Your task to perform on an android device: Search for flights from Barcelona to Boston Image 0: 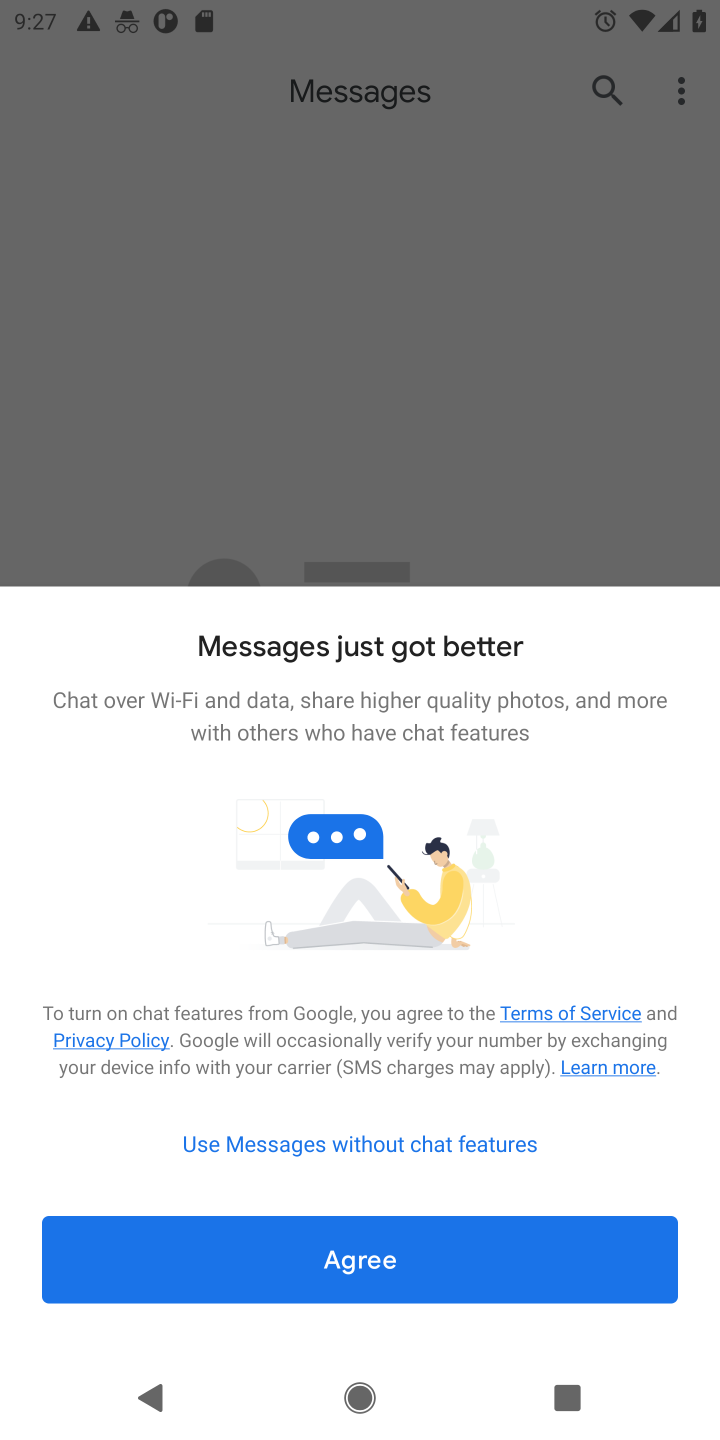
Step 0: press home button
Your task to perform on an android device: Search for flights from Barcelona to Boston Image 1: 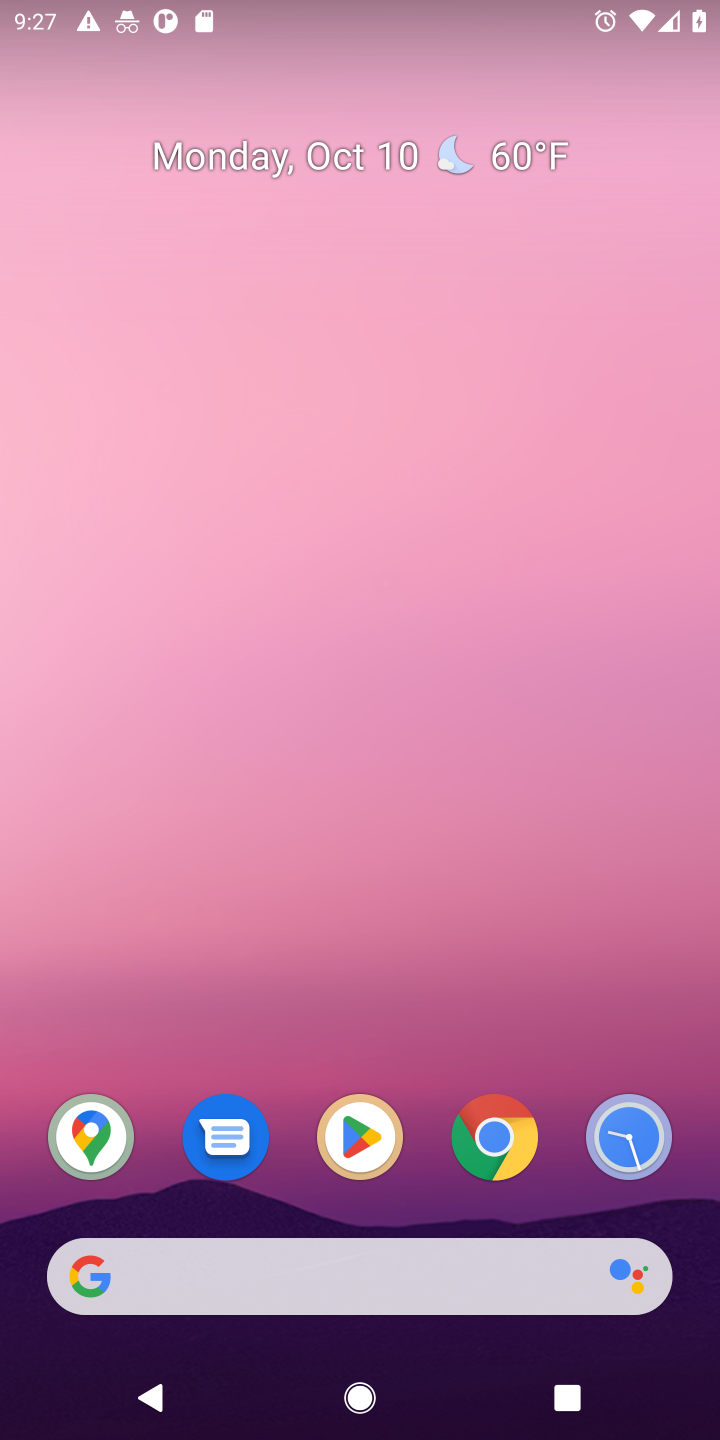
Step 1: click (492, 1133)
Your task to perform on an android device: Search for flights from Barcelona to Boston Image 2: 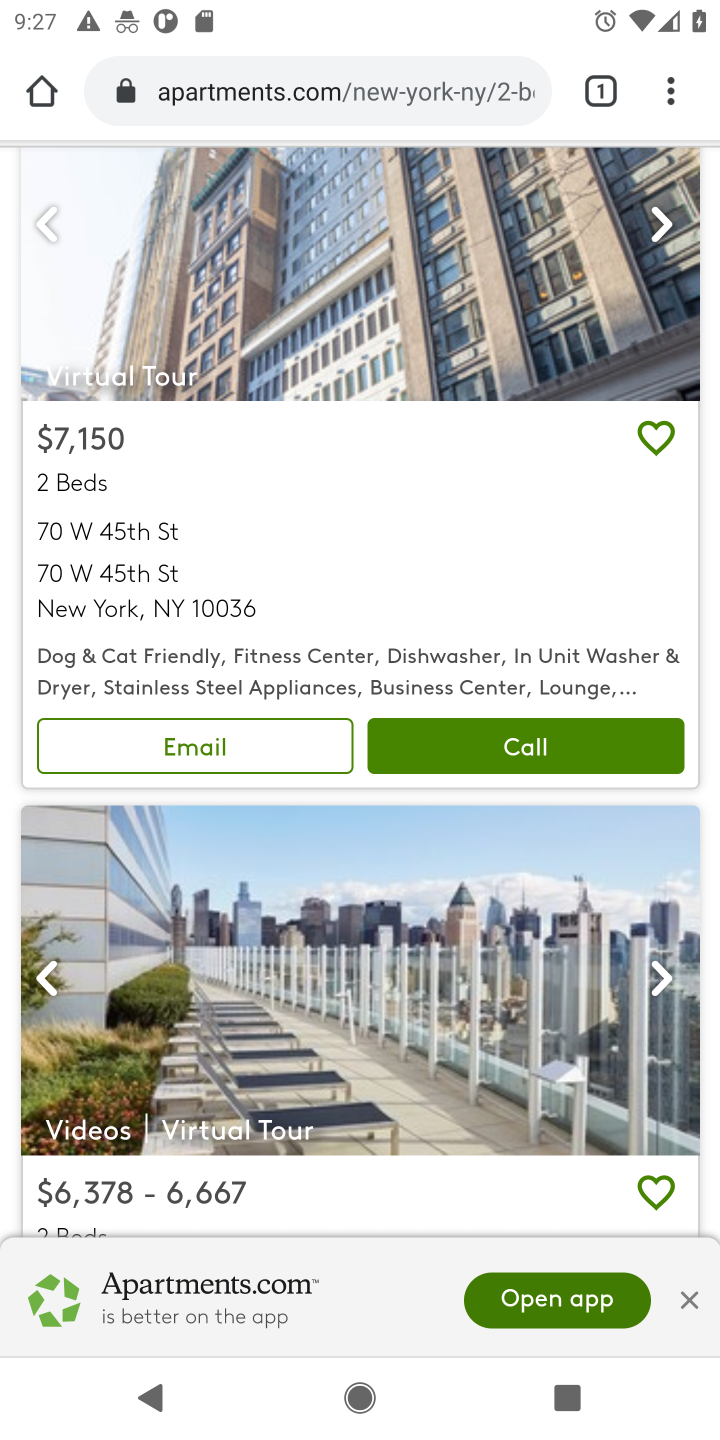
Step 2: click (349, 62)
Your task to perform on an android device: Search for flights from Barcelona to Boston Image 3: 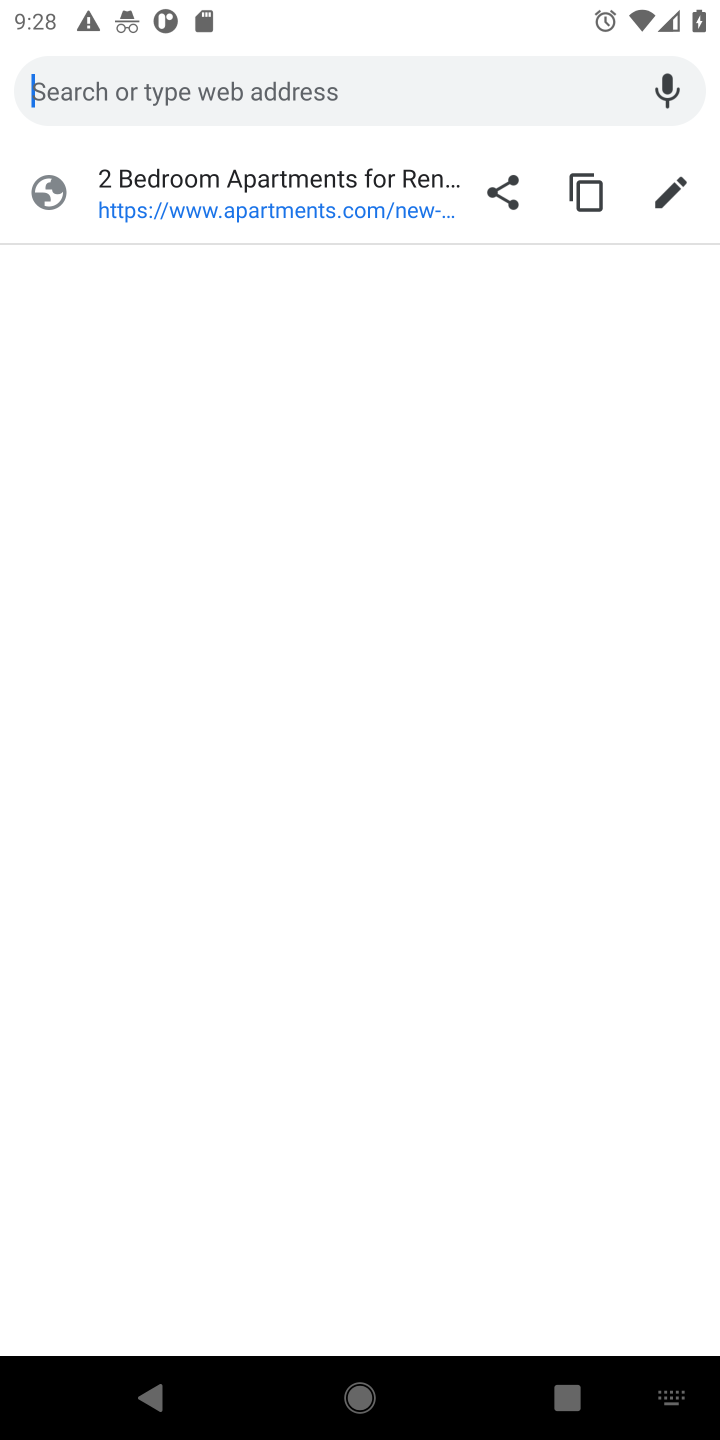
Step 3: type "flights from Barcelona to Boston"
Your task to perform on an android device: Search for flights from Barcelona to Boston Image 4: 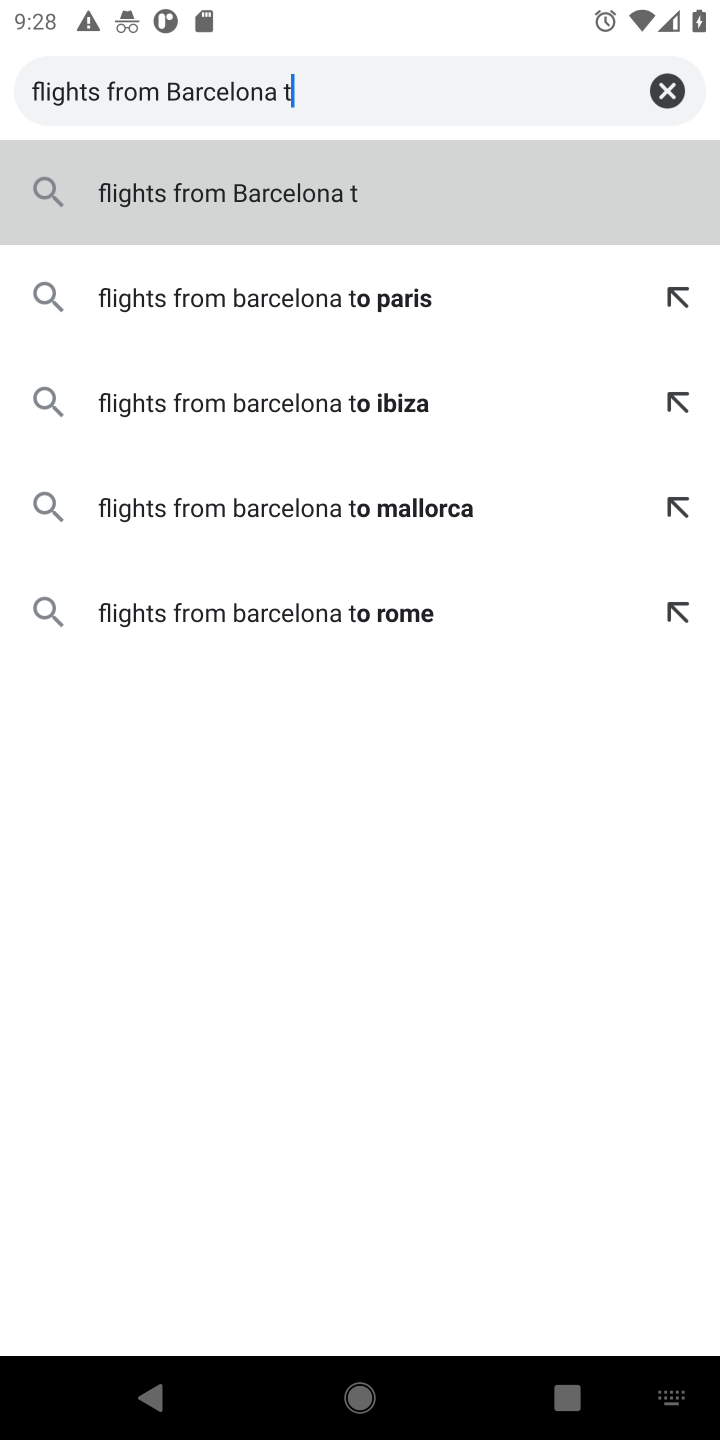
Step 4: type "o boston"
Your task to perform on an android device: Search for flights from Barcelona to Boston Image 5: 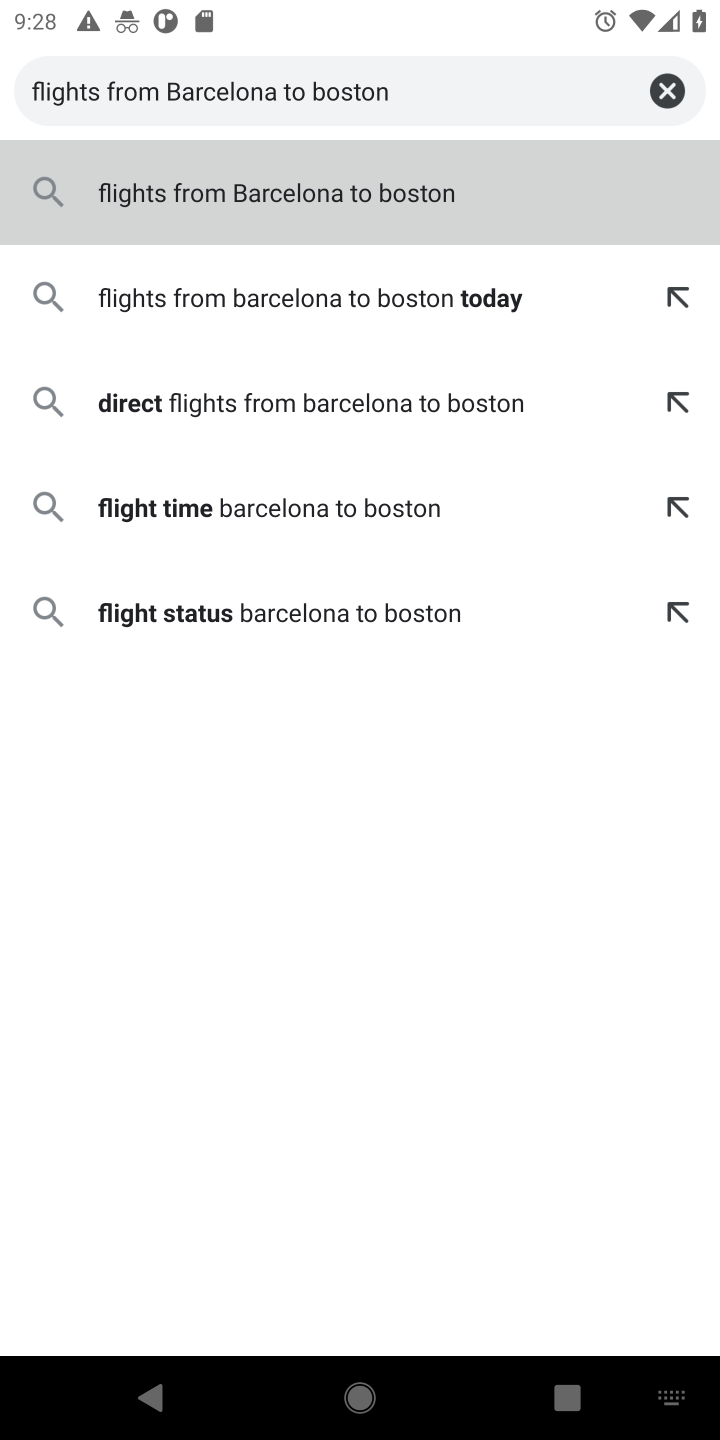
Step 5: click (330, 197)
Your task to perform on an android device: Search for flights from Barcelona to Boston Image 6: 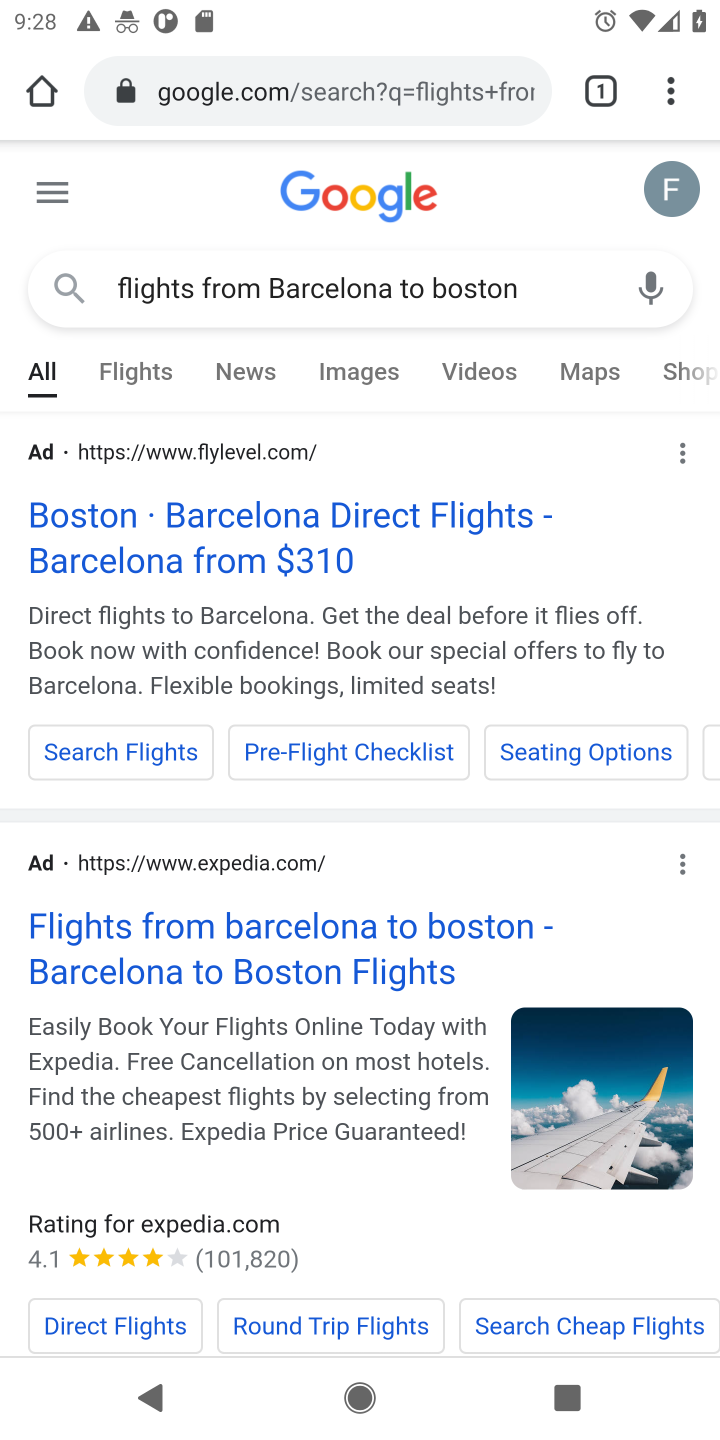
Step 6: click (203, 938)
Your task to perform on an android device: Search for flights from Barcelona to Boston Image 7: 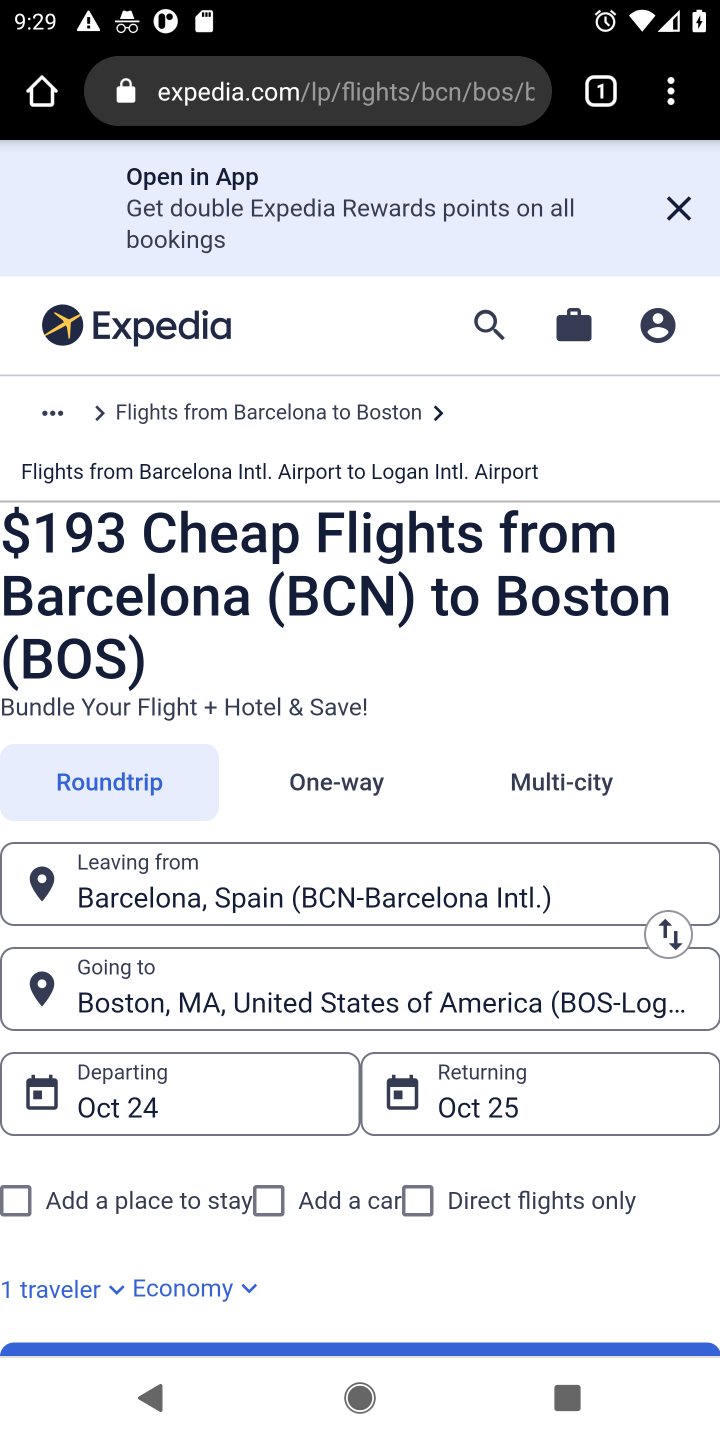
Step 7: drag from (347, 1256) to (370, 788)
Your task to perform on an android device: Search for flights from Barcelona to Boston Image 8: 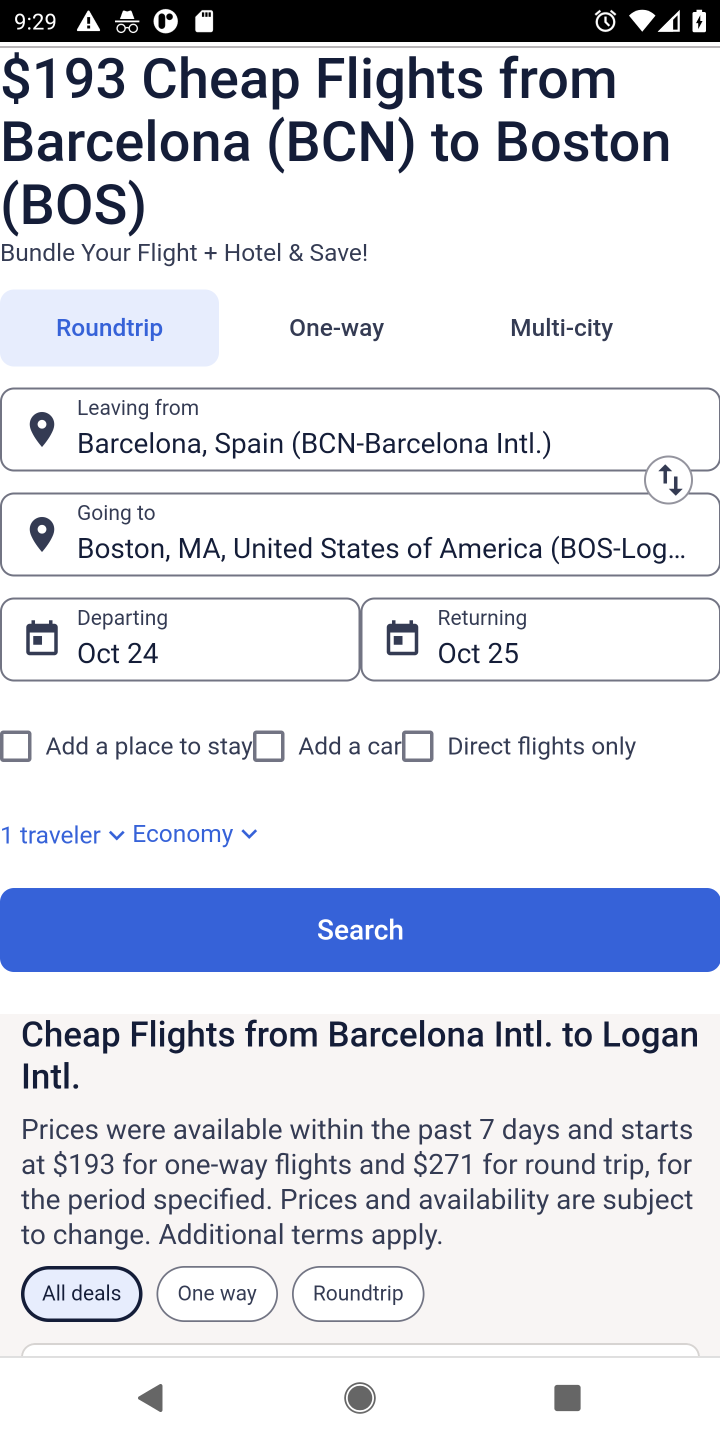
Step 8: click (337, 938)
Your task to perform on an android device: Search for flights from Barcelona to Boston Image 9: 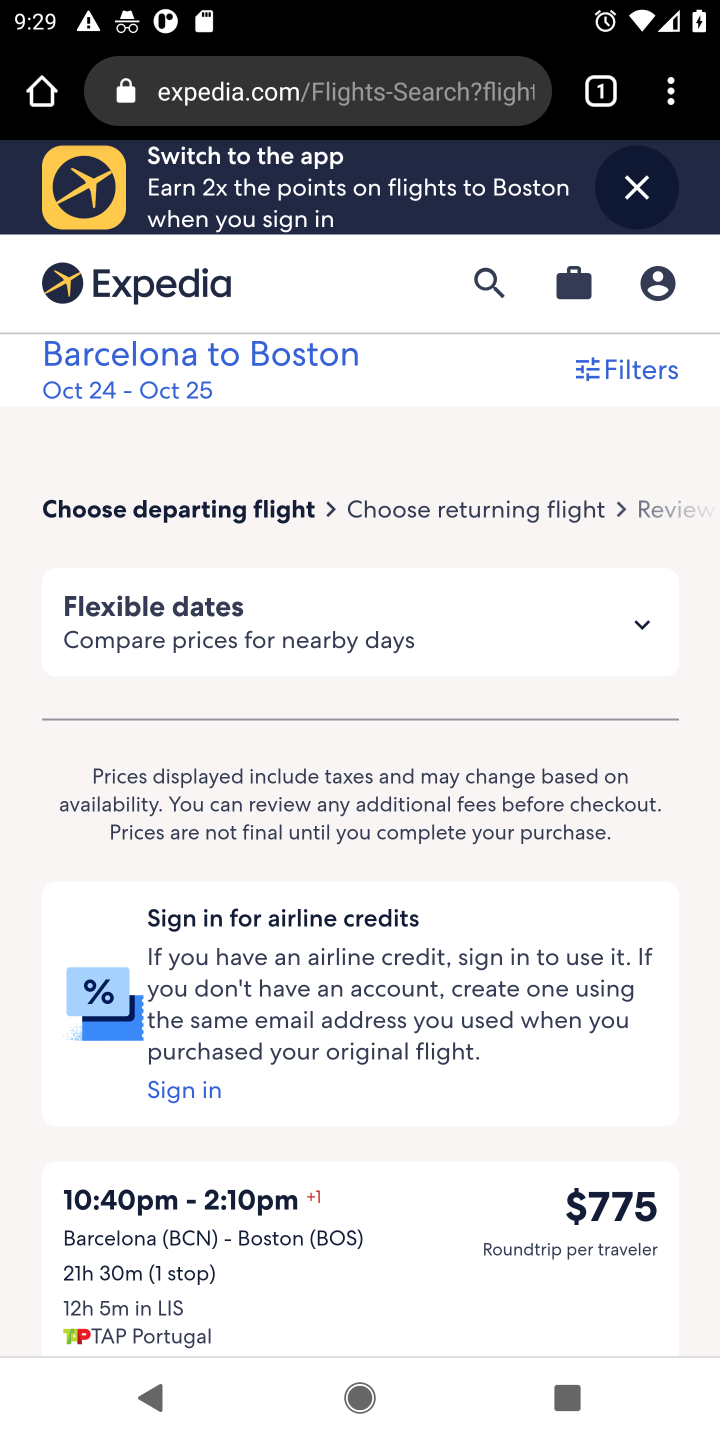
Step 9: task complete